Your task to perform on an android device: Open maps Image 0: 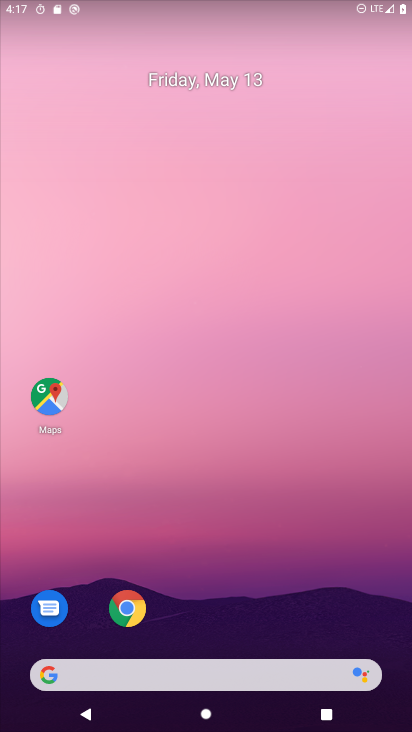
Step 0: click (40, 381)
Your task to perform on an android device: Open maps Image 1: 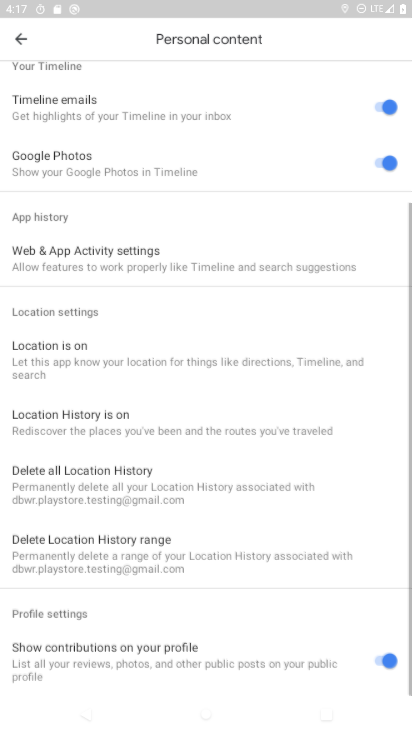
Step 1: task complete